Your task to perform on an android device: Toggle the flashlight Image 0: 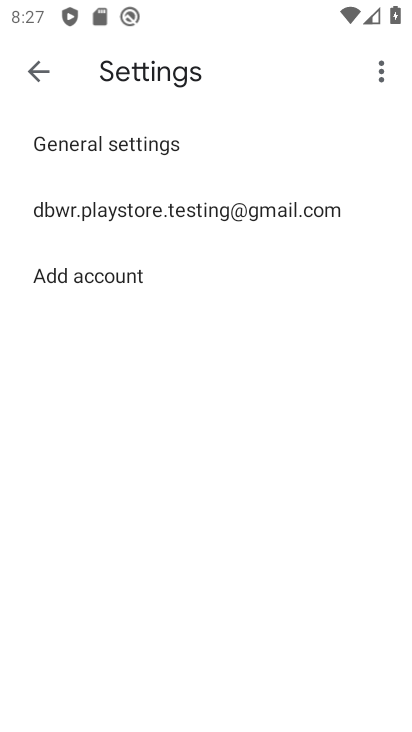
Step 0: click (42, 71)
Your task to perform on an android device: Toggle the flashlight Image 1: 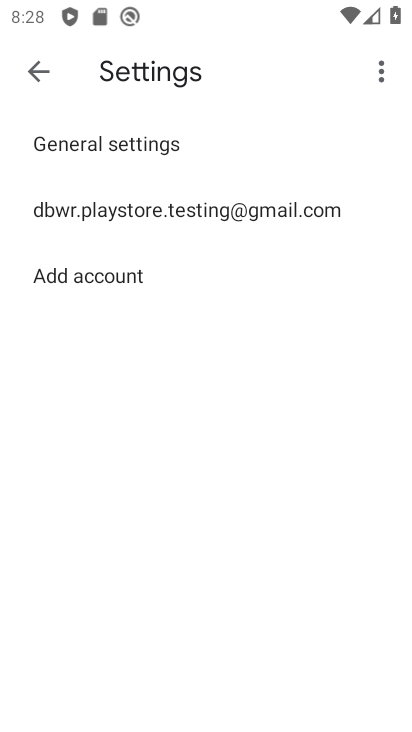
Step 1: task complete